Your task to perform on an android device: Open Google Chrome and click the shortcut for Amazon.com Image 0: 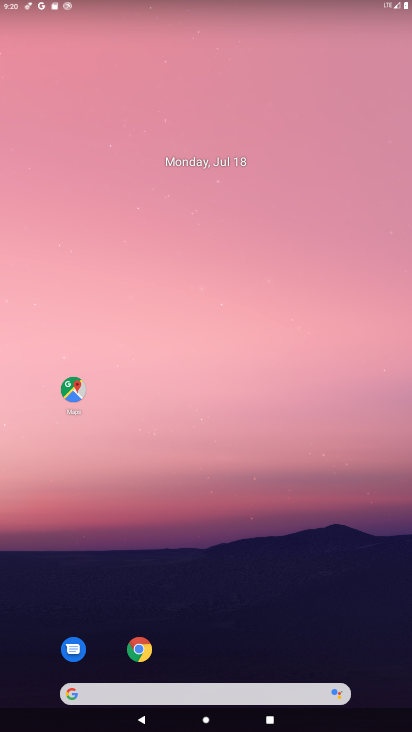
Step 0: drag from (172, 688) to (262, 300)
Your task to perform on an android device: Open Google Chrome and click the shortcut for Amazon.com Image 1: 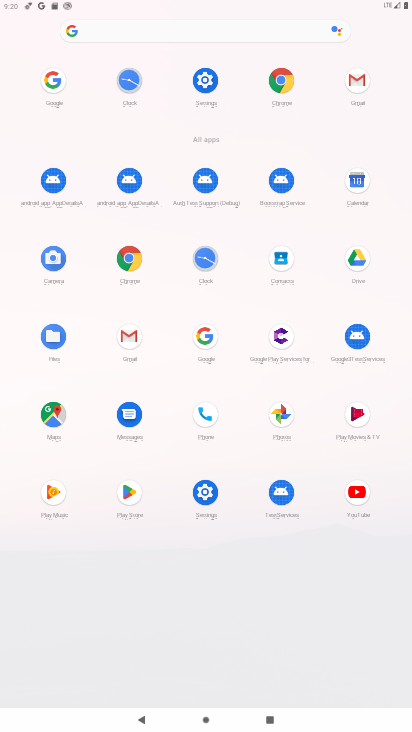
Step 1: click (131, 255)
Your task to perform on an android device: Open Google Chrome and click the shortcut for Amazon.com Image 2: 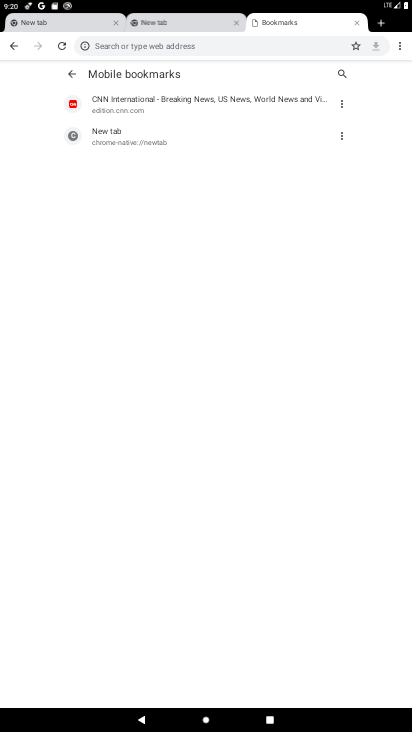
Step 2: click (169, 31)
Your task to perform on an android device: Open Google Chrome and click the shortcut for Amazon.com Image 3: 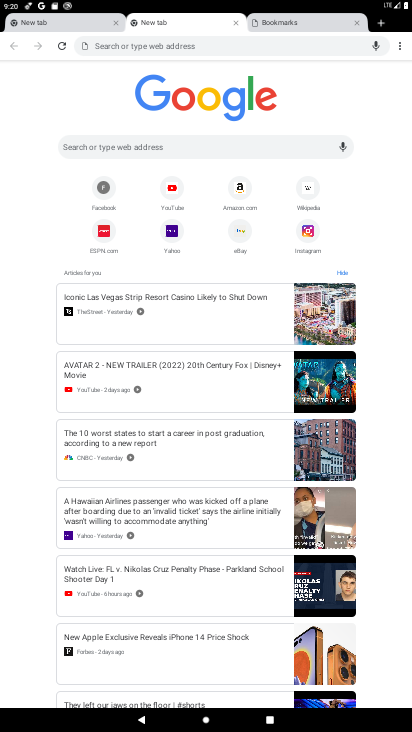
Step 3: click (242, 178)
Your task to perform on an android device: Open Google Chrome and click the shortcut for Amazon.com Image 4: 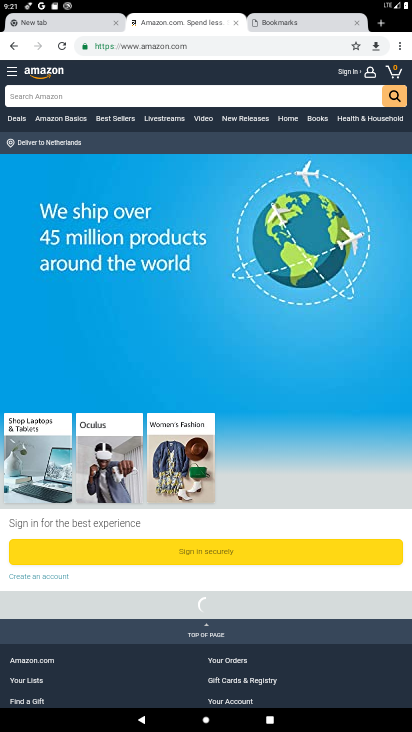
Step 4: task complete